Your task to perform on an android device: Search for vegetarian restaurants on Maps Image 0: 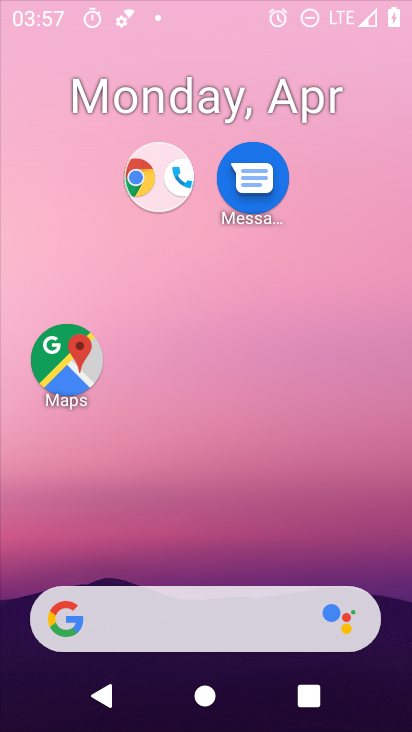
Step 0: drag from (347, 584) to (335, 17)
Your task to perform on an android device: Search for vegetarian restaurants on Maps Image 1: 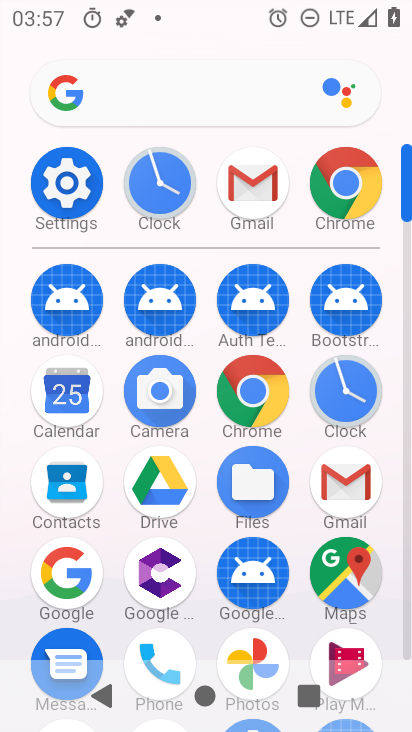
Step 1: click (353, 591)
Your task to perform on an android device: Search for vegetarian restaurants on Maps Image 2: 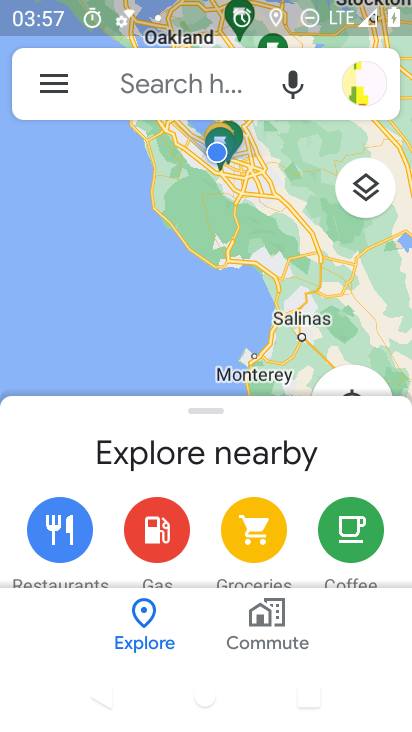
Step 2: click (195, 92)
Your task to perform on an android device: Search for vegetarian restaurants on Maps Image 3: 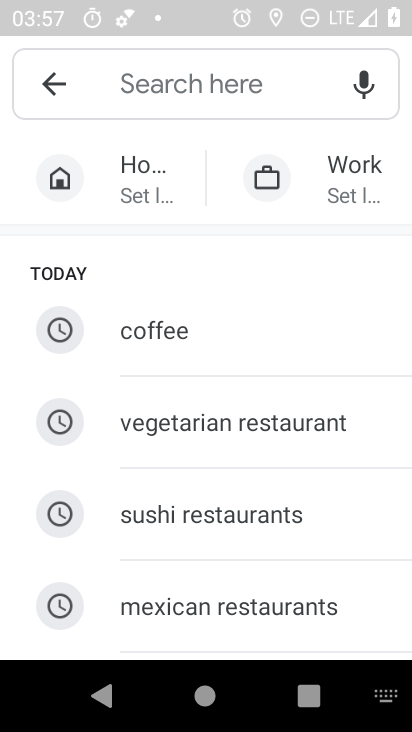
Step 3: click (293, 428)
Your task to perform on an android device: Search for vegetarian restaurants on Maps Image 4: 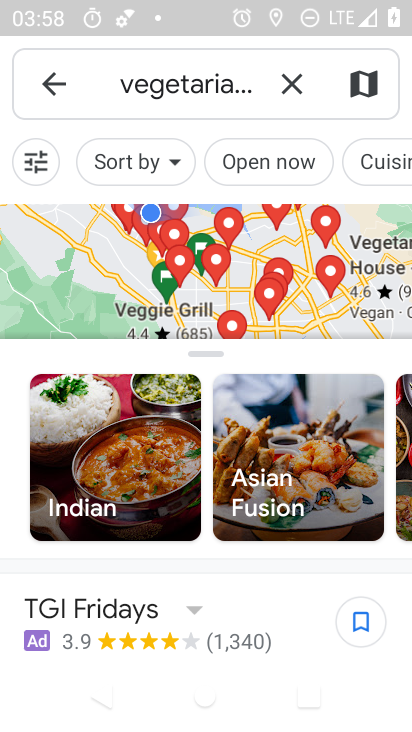
Step 4: task complete